Your task to perform on an android device: move an email to a new category in the gmail app Image 0: 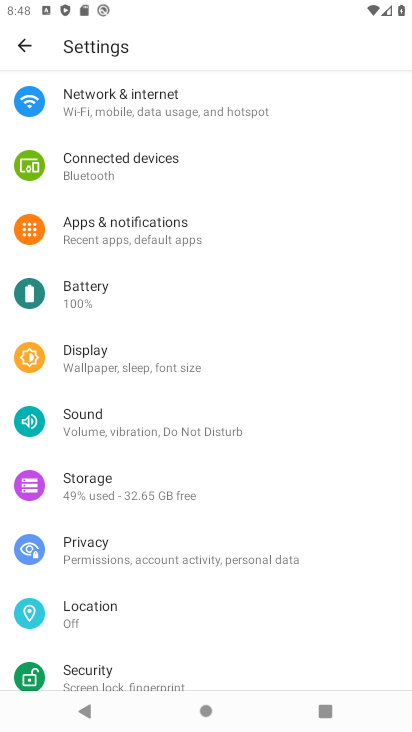
Step 0: press home button
Your task to perform on an android device: move an email to a new category in the gmail app Image 1: 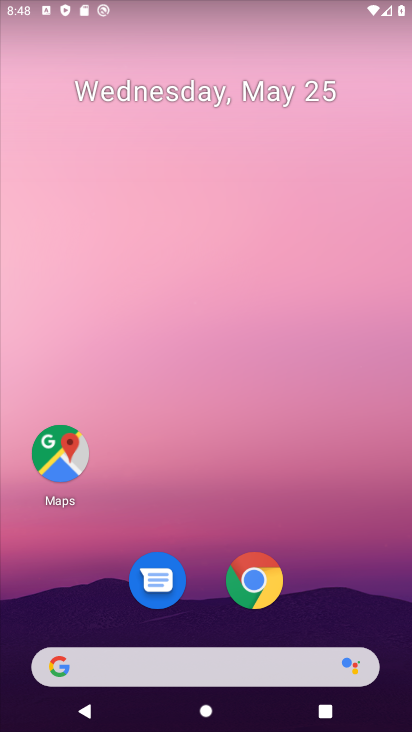
Step 1: drag from (18, 623) to (284, 91)
Your task to perform on an android device: move an email to a new category in the gmail app Image 2: 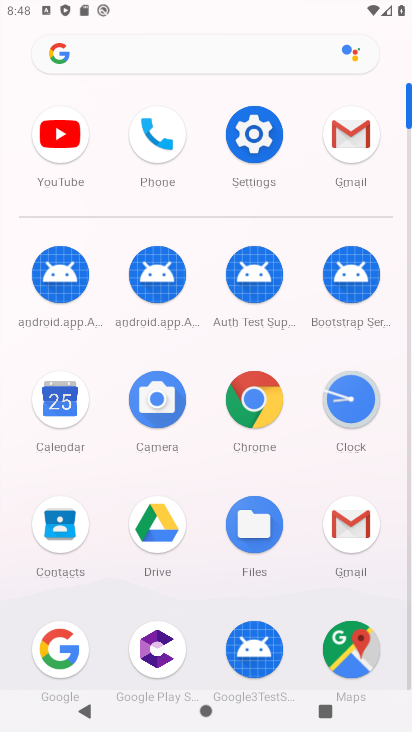
Step 2: click (338, 147)
Your task to perform on an android device: move an email to a new category in the gmail app Image 3: 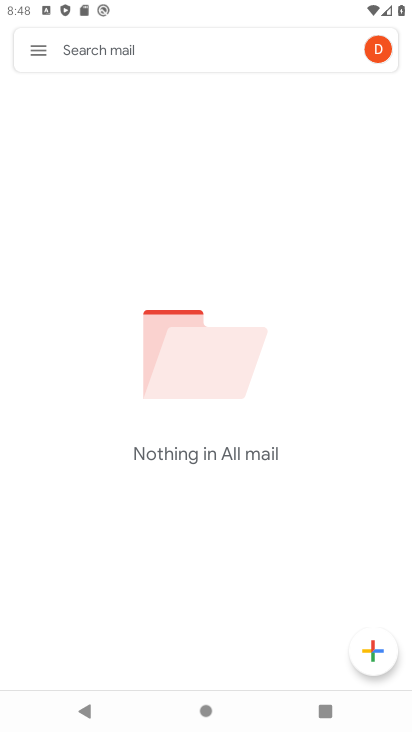
Step 3: click (38, 47)
Your task to perform on an android device: move an email to a new category in the gmail app Image 4: 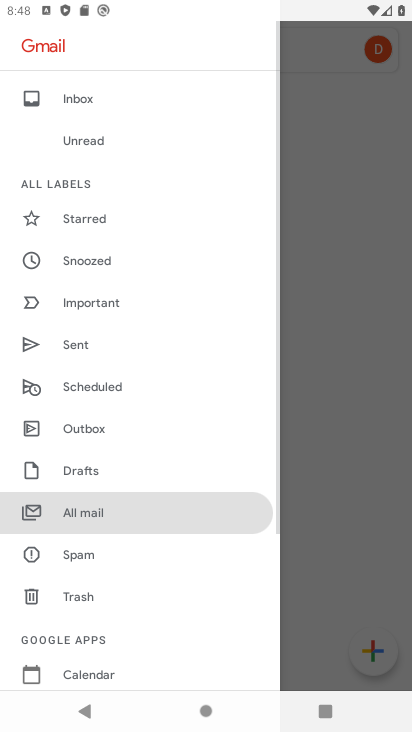
Step 4: click (115, 91)
Your task to perform on an android device: move an email to a new category in the gmail app Image 5: 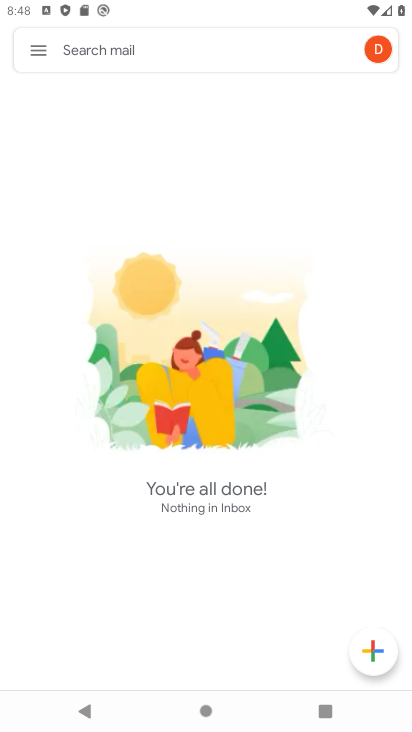
Step 5: task complete